Your task to perform on an android device: empty trash in google photos Image 0: 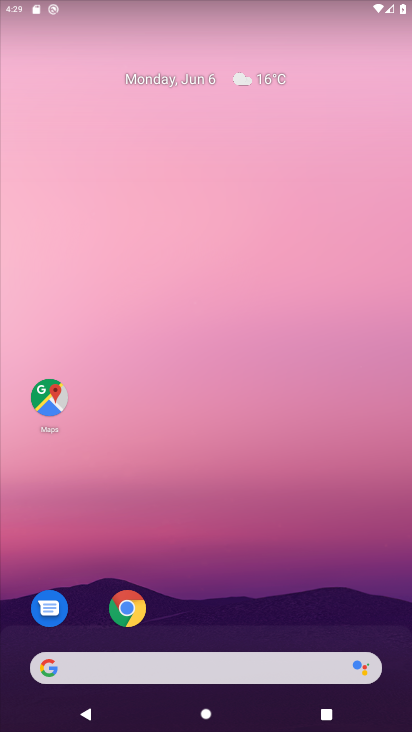
Step 0: drag from (173, 639) to (260, 144)
Your task to perform on an android device: empty trash in google photos Image 1: 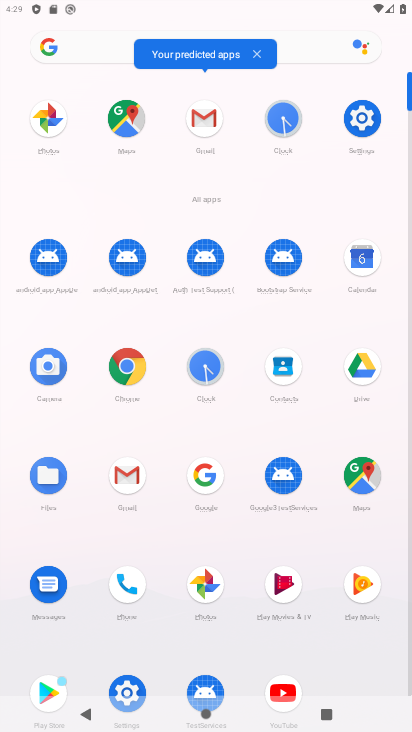
Step 1: click (193, 594)
Your task to perform on an android device: empty trash in google photos Image 2: 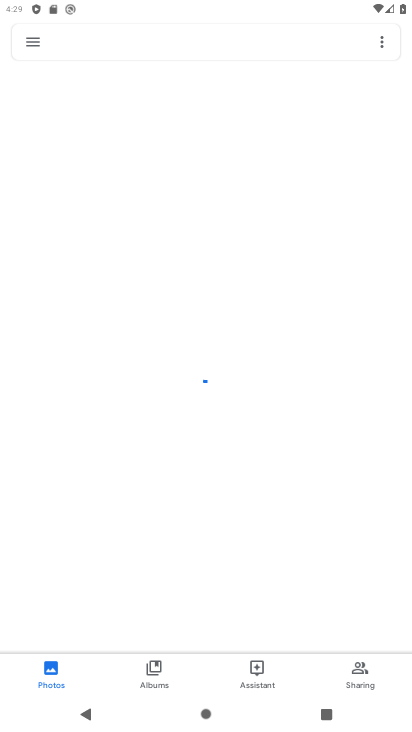
Step 2: click (27, 55)
Your task to perform on an android device: empty trash in google photos Image 3: 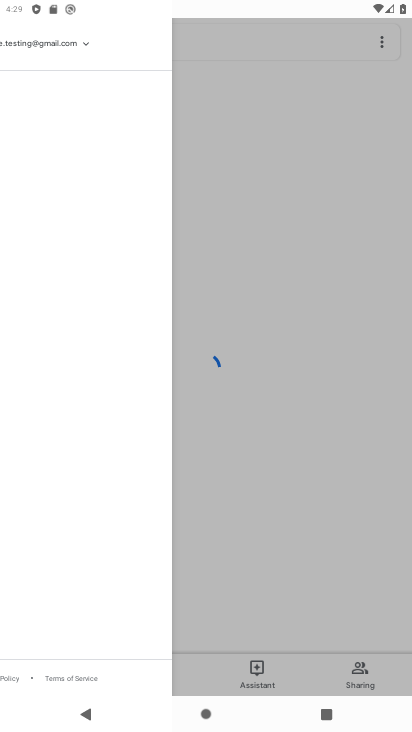
Step 3: click (34, 45)
Your task to perform on an android device: empty trash in google photos Image 4: 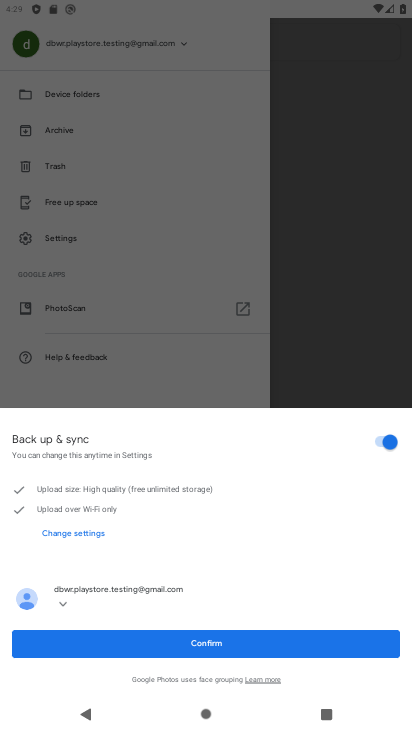
Step 4: click (192, 648)
Your task to perform on an android device: empty trash in google photos Image 5: 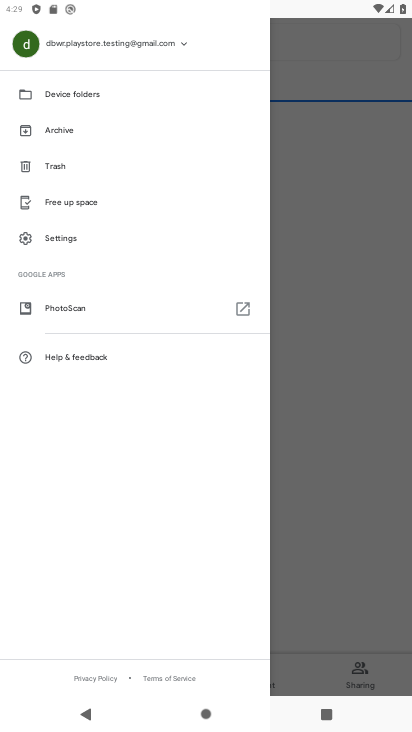
Step 5: click (78, 168)
Your task to perform on an android device: empty trash in google photos Image 6: 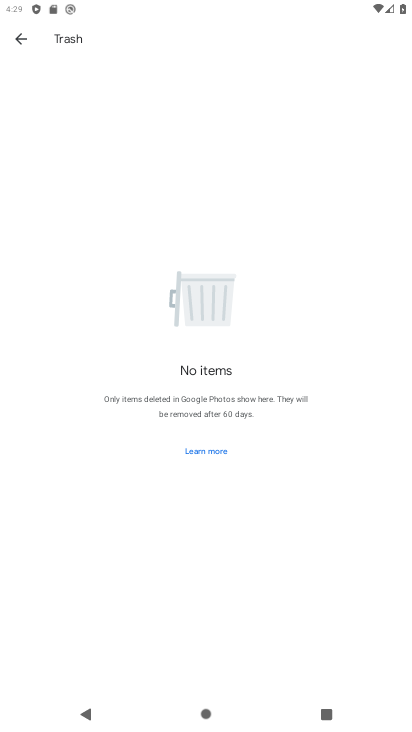
Step 6: task complete